Your task to perform on an android device: open the mobile data screen to see how much data has been used Image 0: 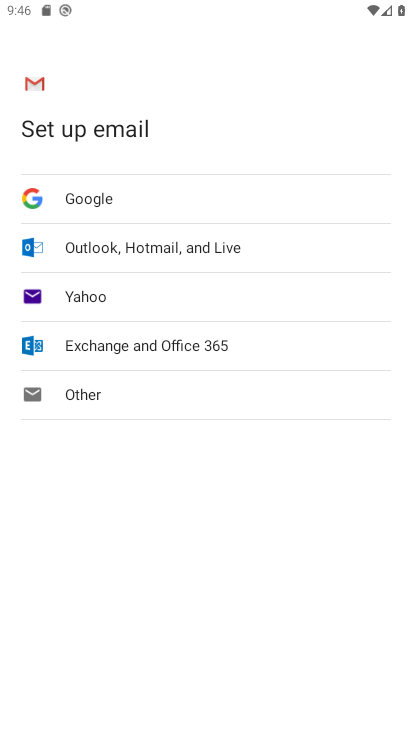
Step 0: press home button
Your task to perform on an android device: open the mobile data screen to see how much data has been used Image 1: 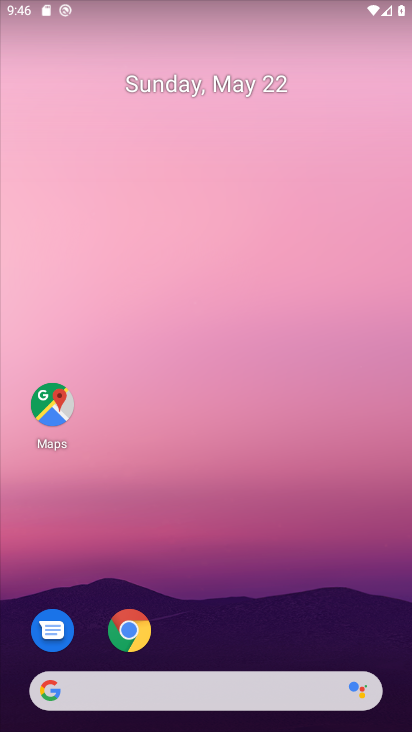
Step 1: drag from (394, 657) to (349, 160)
Your task to perform on an android device: open the mobile data screen to see how much data has been used Image 2: 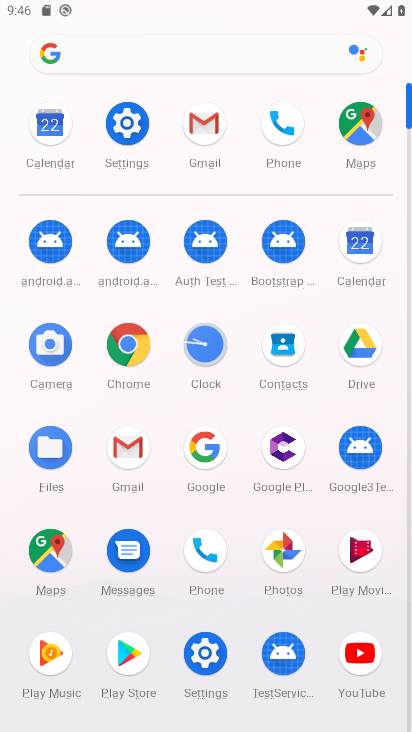
Step 2: click (119, 128)
Your task to perform on an android device: open the mobile data screen to see how much data has been used Image 3: 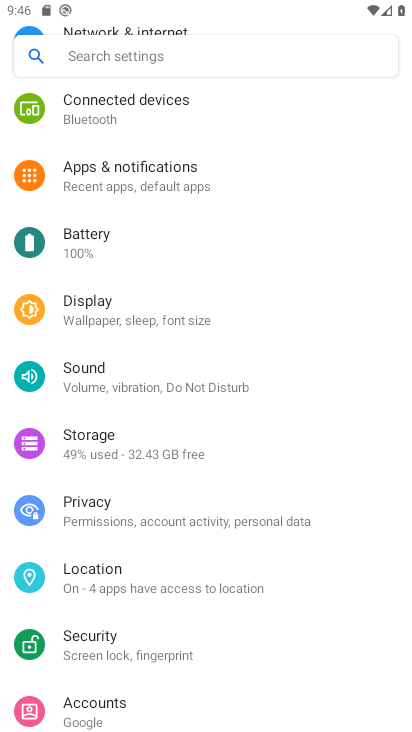
Step 3: drag from (341, 384) to (358, 623)
Your task to perform on an android device: open the mobile data screen to see how much data has been used Image 4: 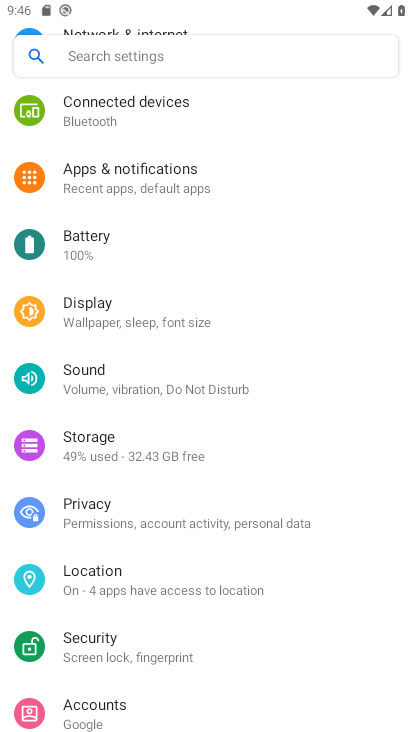
Step 4: drag from (336, 143) to (358, 504)
Your task to perform on an android device: open the mobile data screen to see how much data has been used Image 5: 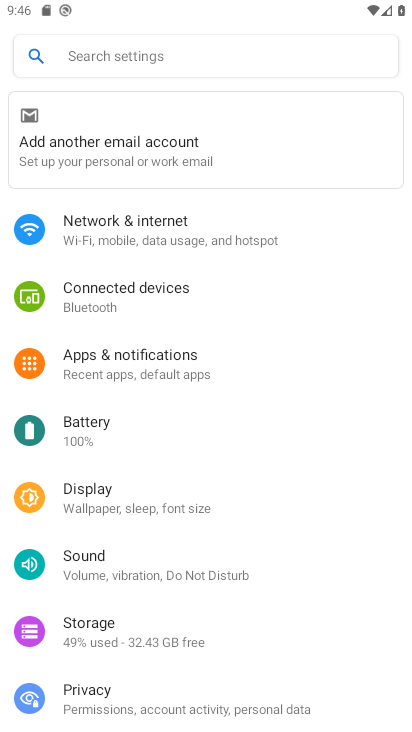
Step 5: click (154, 237)
Your task to perform on an android device: open the mobile data screen to see how much data has been used Image 6: 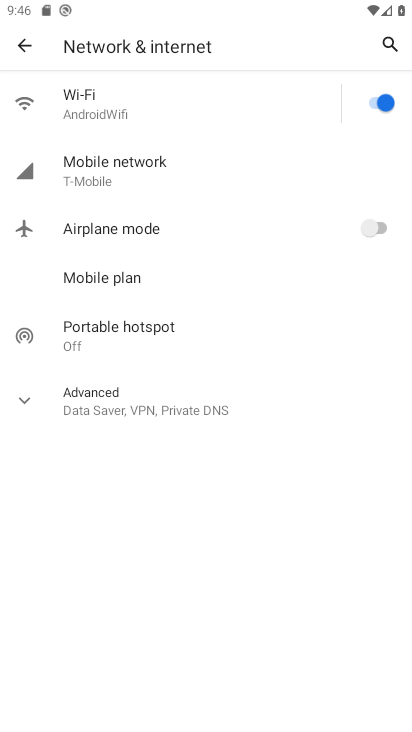
Step 6: click (121, 170)
Your task to perform on an android device: open the mobile data screen to see how much data has been used Image 7: 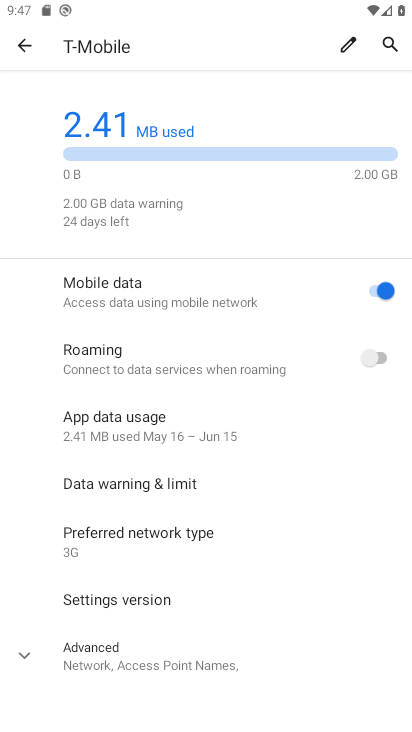
Step 7: task complete